Your task to perform on an android device: Go to battery settings Image 0: 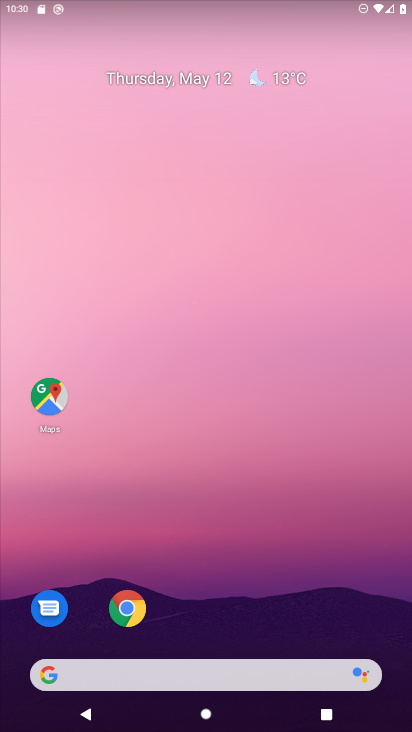
Step 0: drag from (218, 608) to (218, 105)
Your task to perform on an android device: Go to battery settings Image 1: 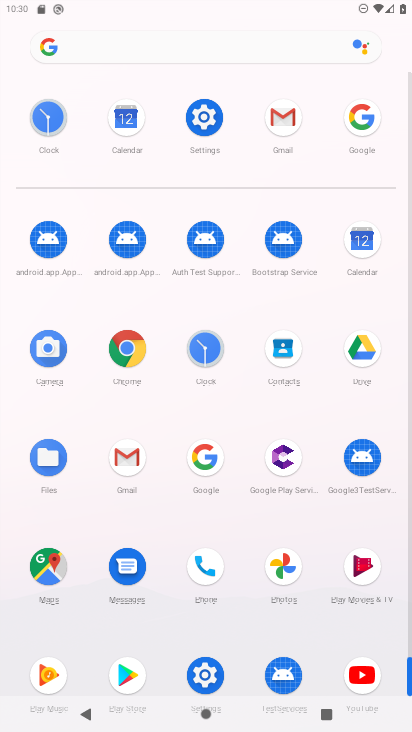
Step 1: click (192, 111)
Your task to perform on an android device: Go to battery settings Image 2: 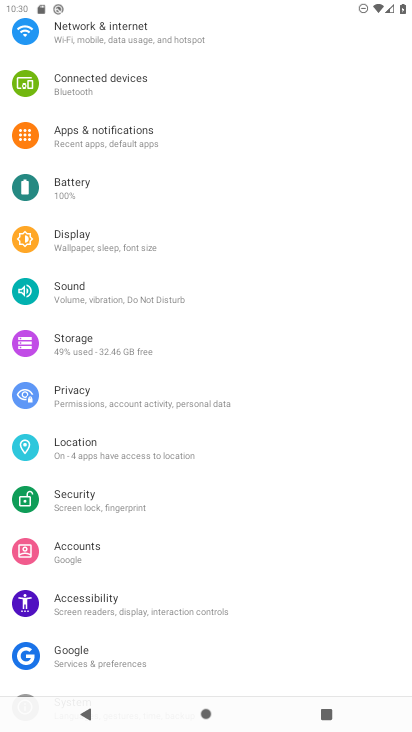
Step 2: click (104, 184)
Your task to perform on an android device: Go to battery settings Image 3: 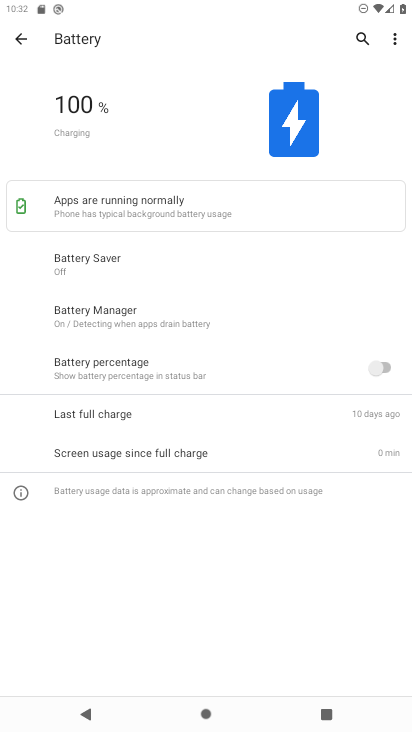
Step 3: task complete